Your task to perform on an android device: Clear the shopping cart on target.com. Image 0: 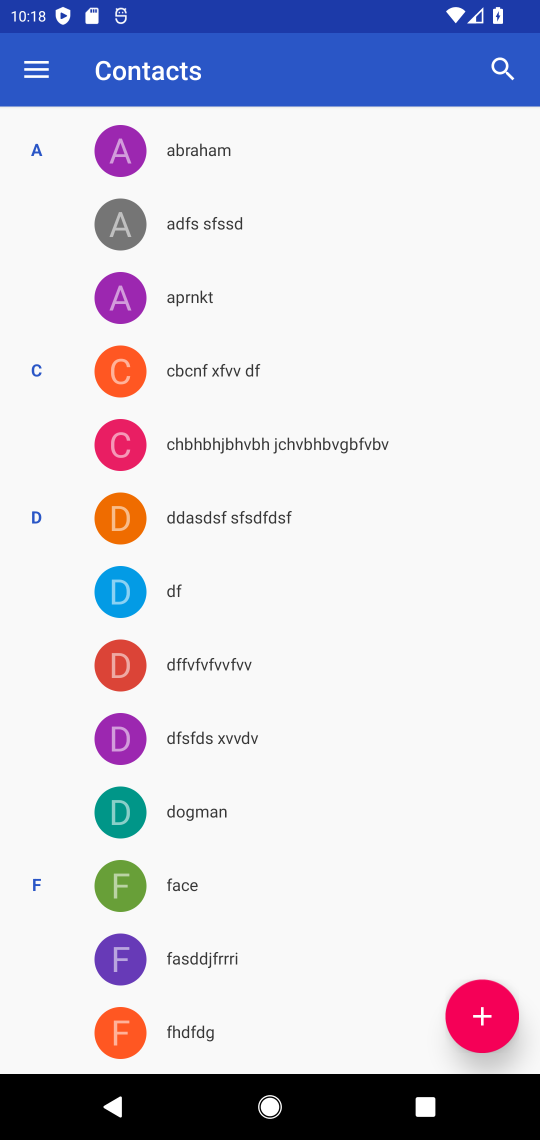
Step 0: press home button
Your task to perform on an android device: Clear the shopping cart on target.com. Image 1: 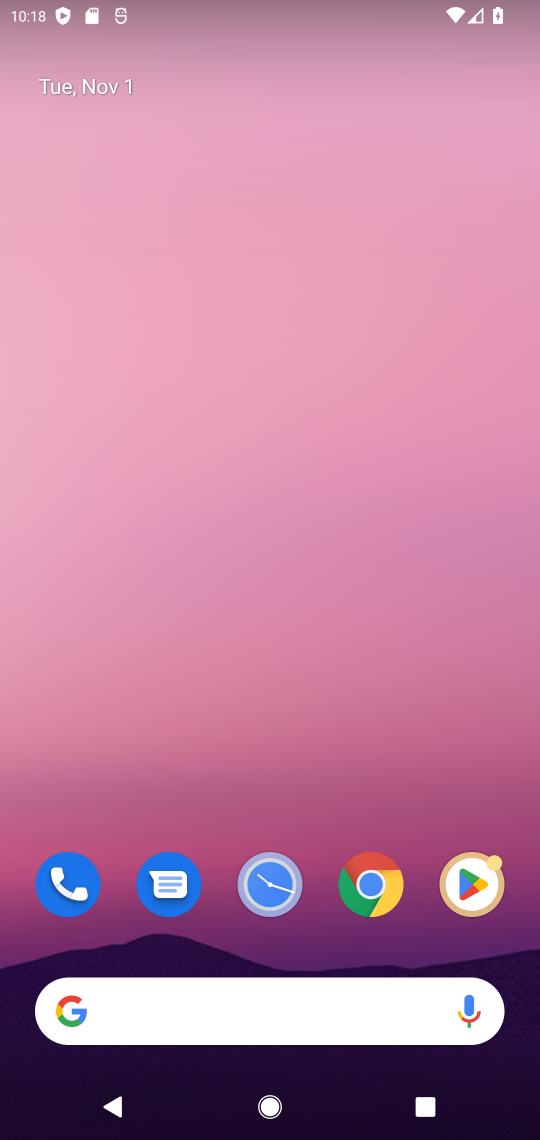
Step 1: click (372, 890)
Your task to perform on an android device: Clear the shopping cart on target.com. Image 2: 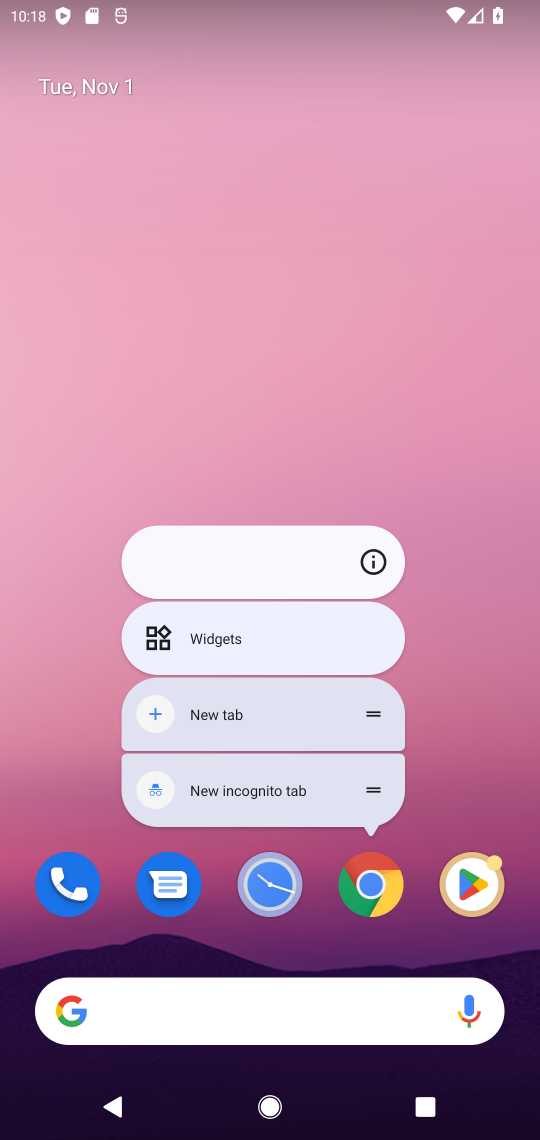
Step 2: click (439, 779)
Your task to perform on an android device: Clear the shopping cart on target.com. Image 3: 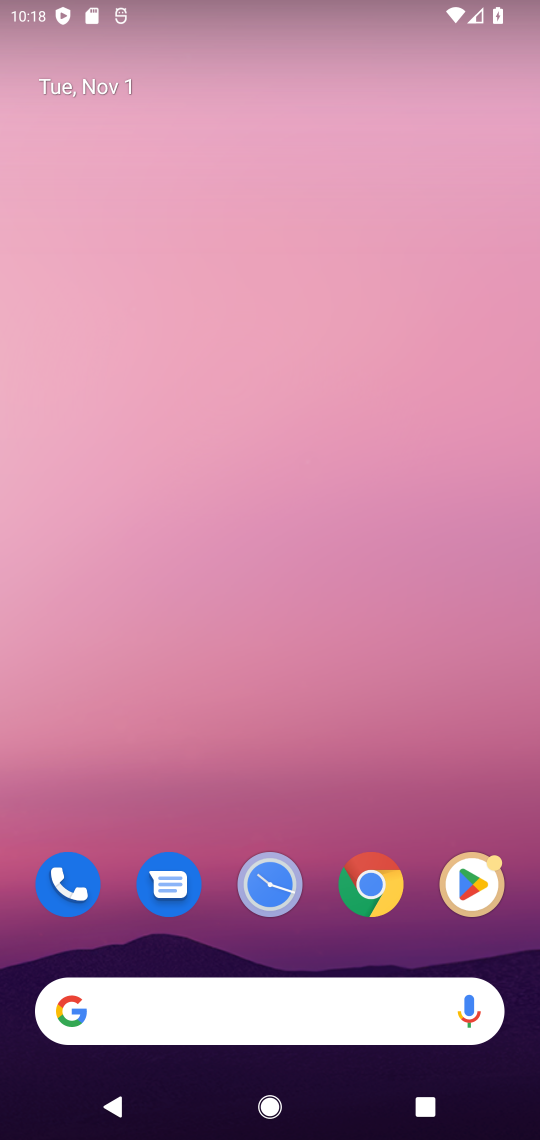
Step 3: click (374, 889)
Your task to perform on an android device: Clear the shopping cart on target.com. Image 4: 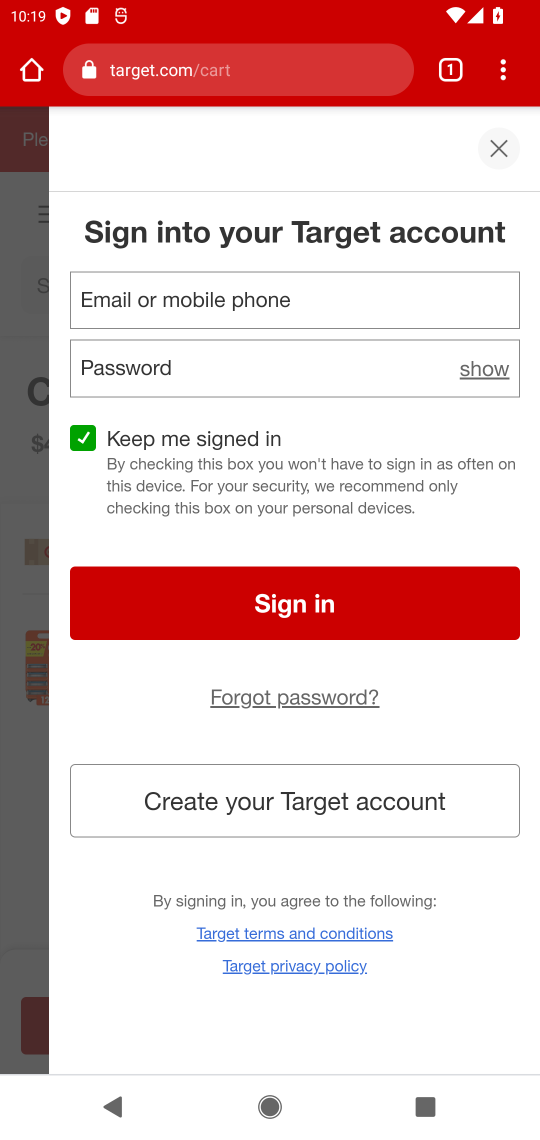
Step 4: click (502, 155)
Your task to perform on an android device: Clear the shopping cart on target.com. Image 5: 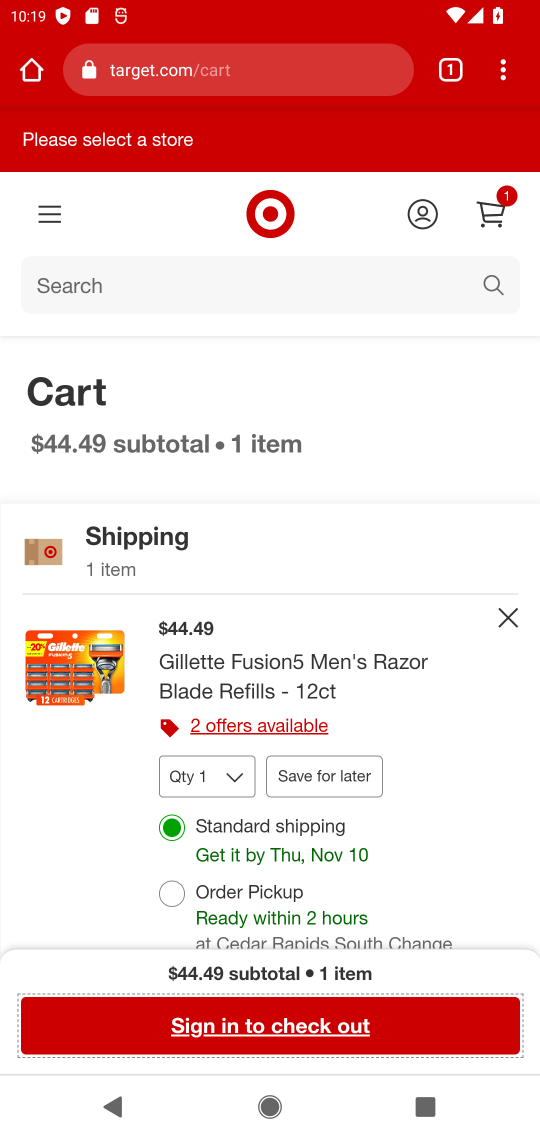
Step 5: click (494, 208)
Your task to perform on an android device: Clear the shopping cart on target.com. Image 6: 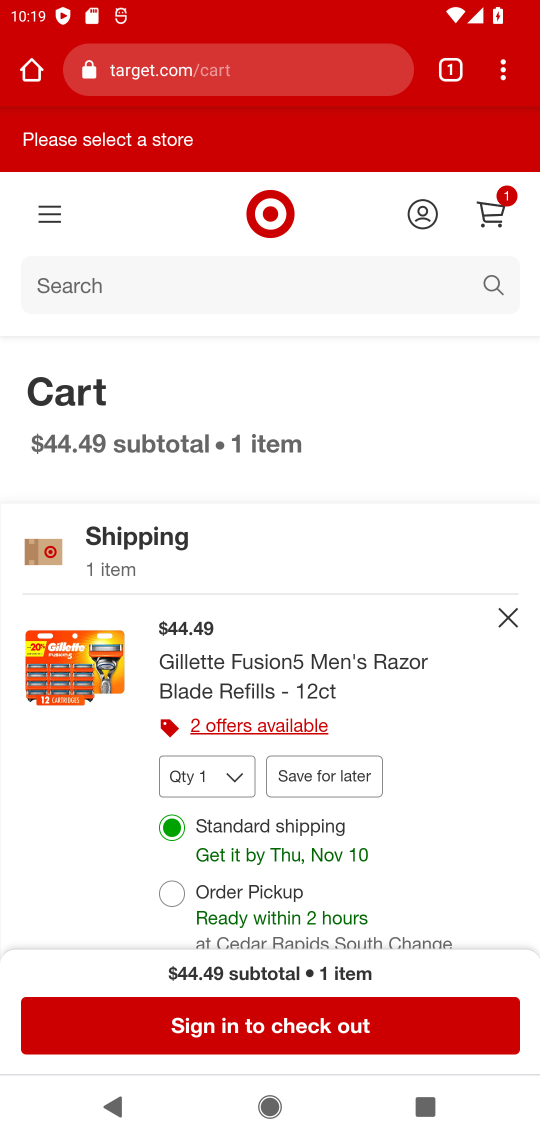
Step 6: click (495, 624)
Your task to perform on an android device: Clear the shopping cart on target.com. Image 7: 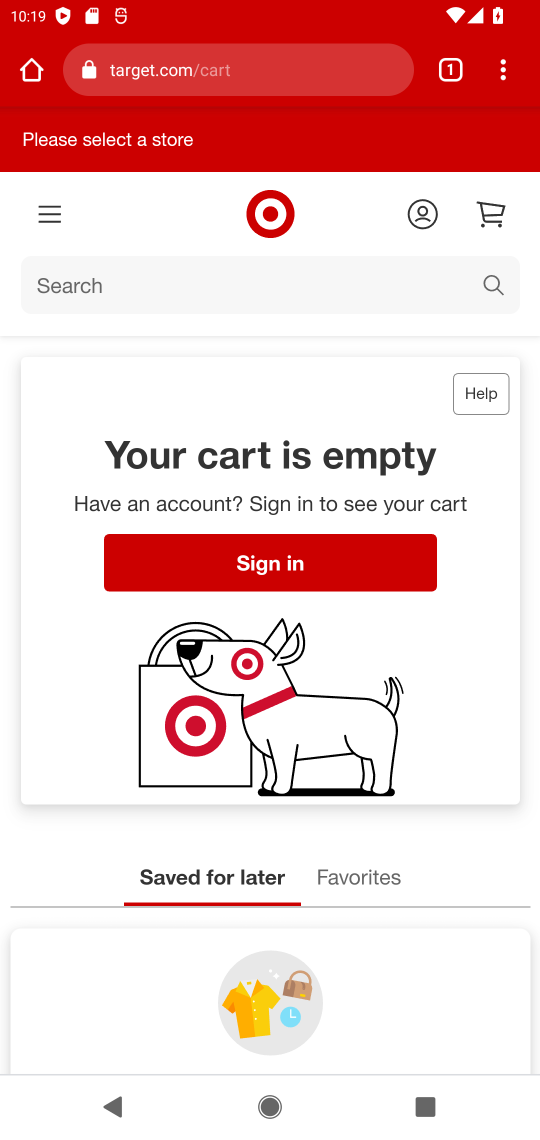
Step 7: task complete